Your task to perform on an android device: set the stopwatch Image 0: 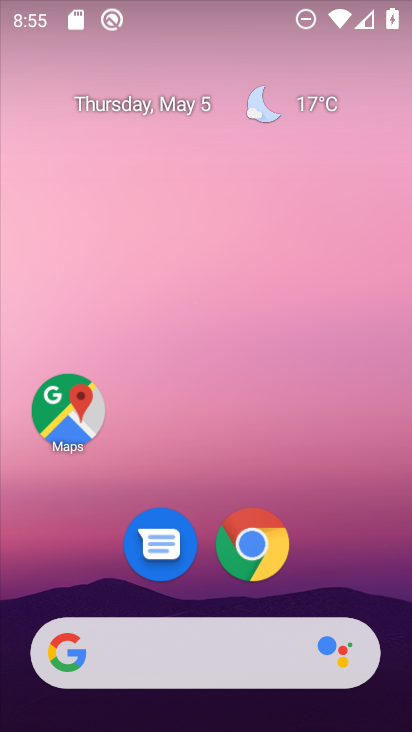
Step 0: drag from (395, 631) to (292, 65)
Your task to perform on an android device: set the stopwatch Image 1: 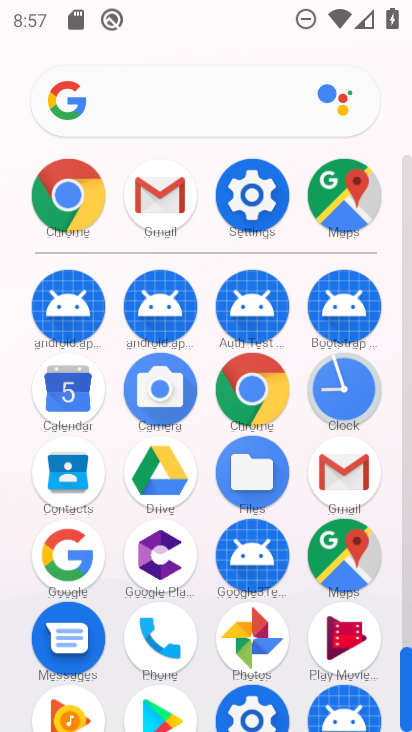
Step 1: click (321, 379)
Your task to perform on an android device: set the stopwatch Image 2: 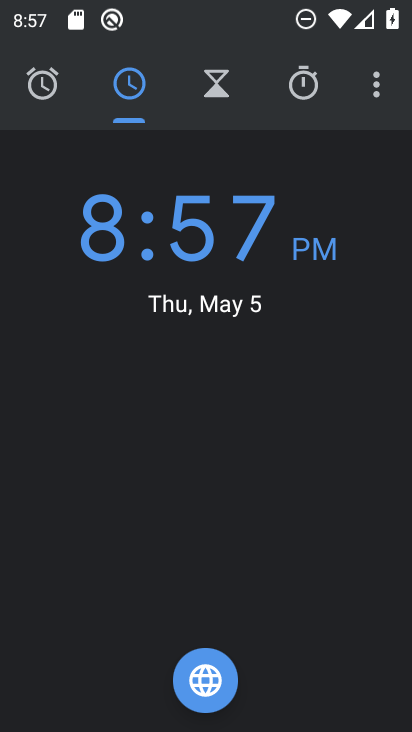
Step 2: click (306, 72)
Your task to perform on an android device: set the stopwatch Image 3: 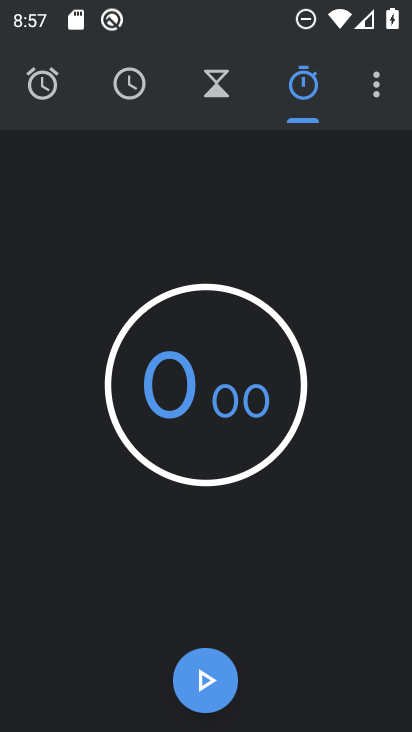
Step 3: task complete